Your task to perform on an android device: open chrome privacy settings Image 0: 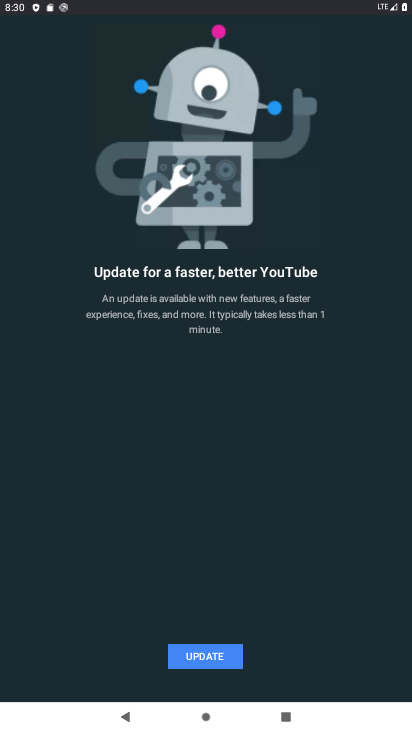
Step 0: drag from (202, 668) to (266, 104)
Your task to perform on an android device: open chrome privacy settings Image 1: 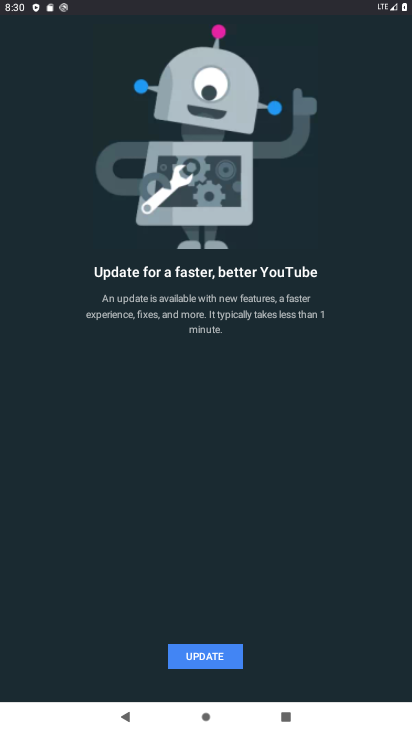
Step 1: press home button
Your task to perform on an android device: open chrome privacy settings Image 2: 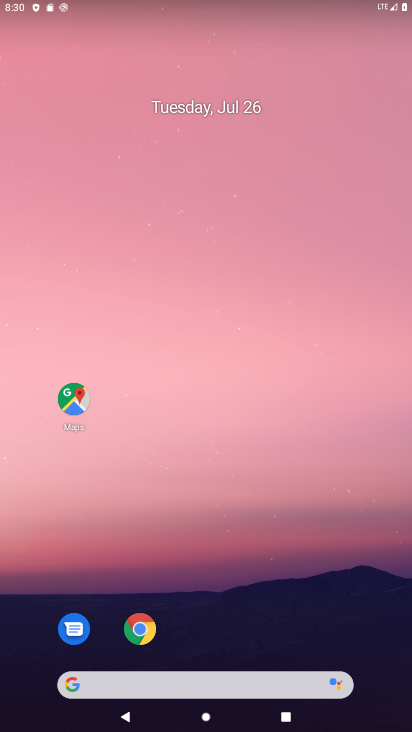
Step 2: click (144, 631)
Your task to perform on an android device: open chrome privacy settings Image 3: 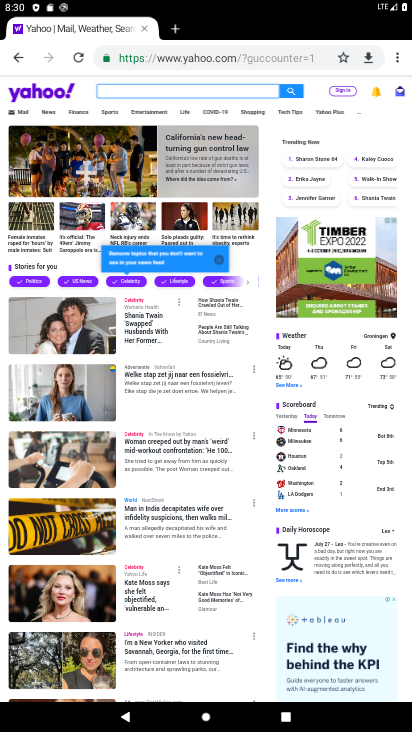
Step 3: drag from (397, 51) to (278, 379)
Your task to perform on an android device: open chrome privacy settings Image 4: 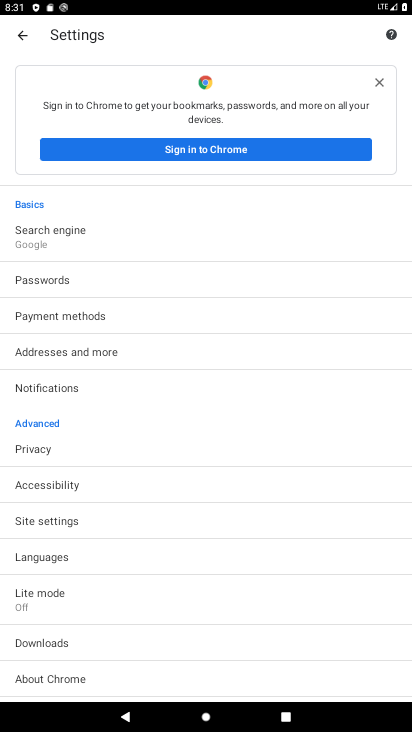
Step 4: click (40, 449)
Your task to perform on an android device: open chrome privacy settings Image 5: 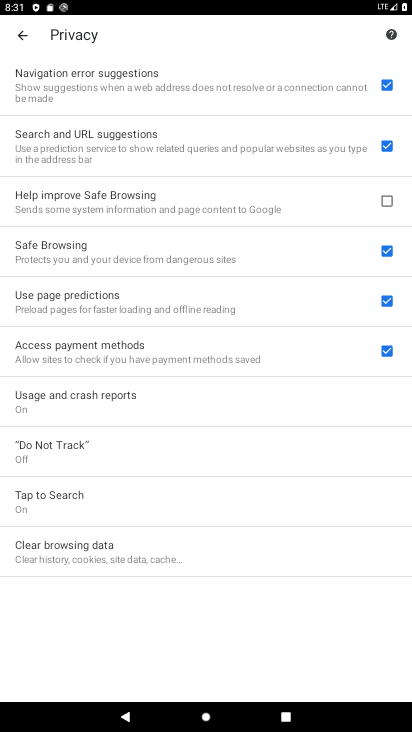
Step 5: task complete